Your task to perform on an android device: turn off sleep mode Image 0: 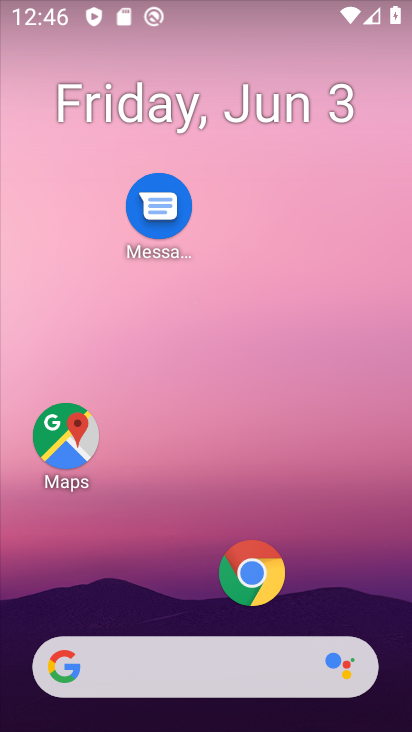
Step 0: drag from (237, 39) to (315, 459)
Your task to perform on an android device: turn off sleep mode Image 1: 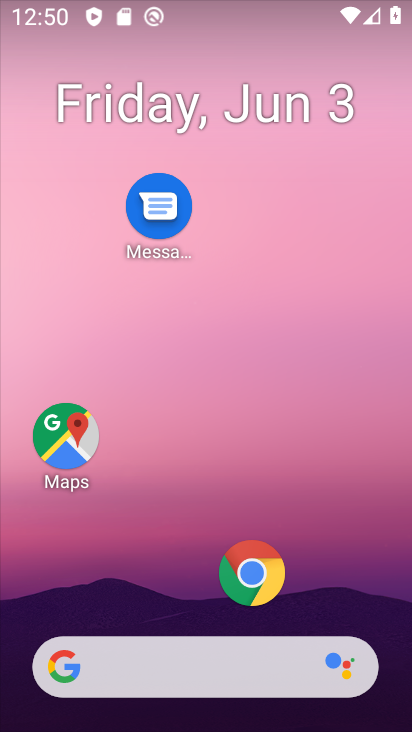
Step 1: task complete